Your task to perform on an android device: empty trash in google photos Image 0: 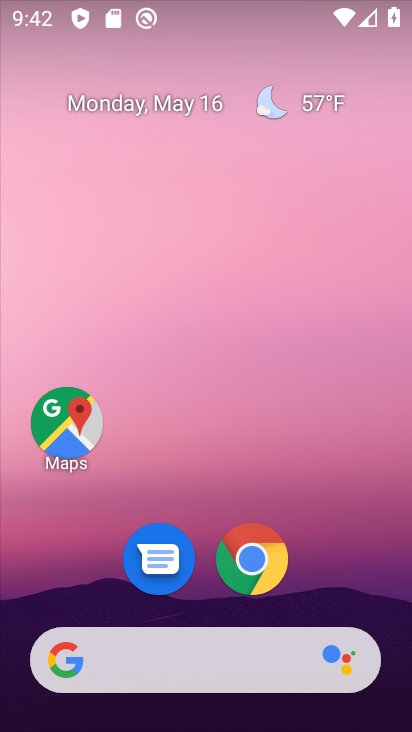
Step 0: drag from (365, 580) to (325, 80)
Your task to perform on an android device: empty trash in google photos Image 1: 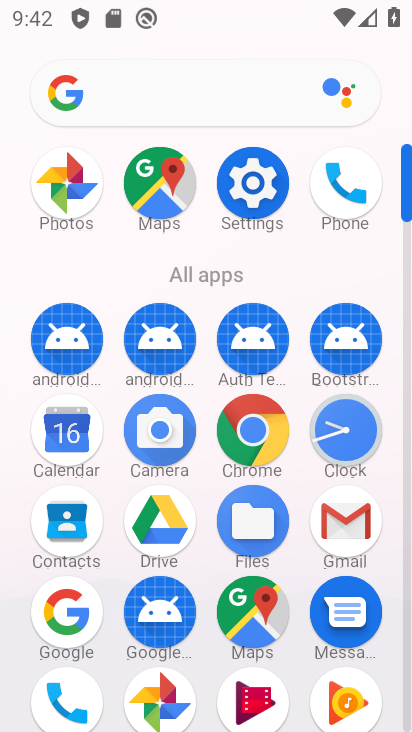
Step 1: click (162, 698)
Your task to perform on an android device: empty trash in google photos Image 2: 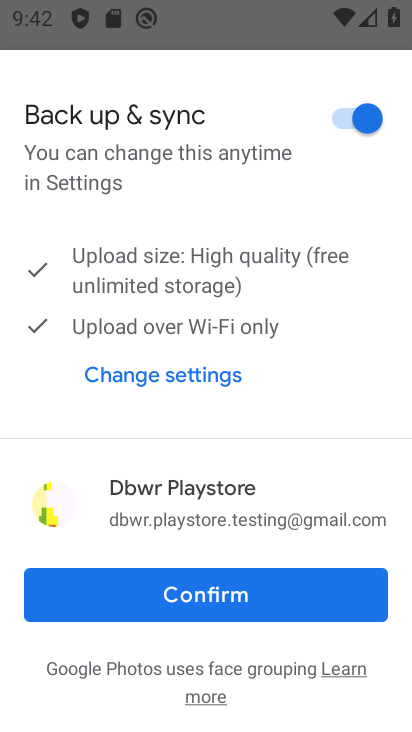
Step 2: click (228, 601)
Your task to perform on an android device: empty trash in google photos Image 3: 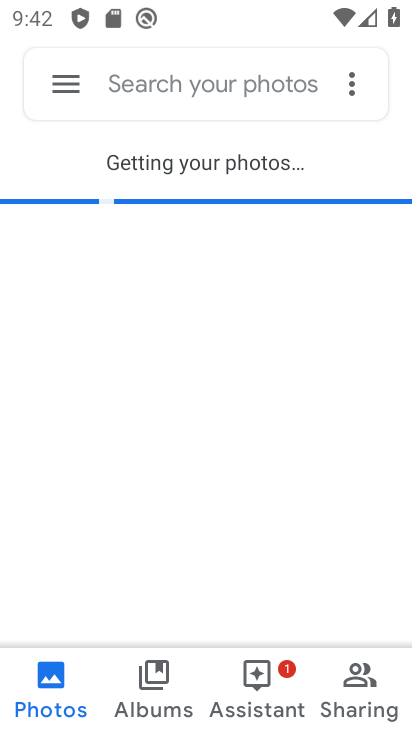
Step 3: click (63, 79)
Your task to perform on an android device: empty trash in google photos Image 4: 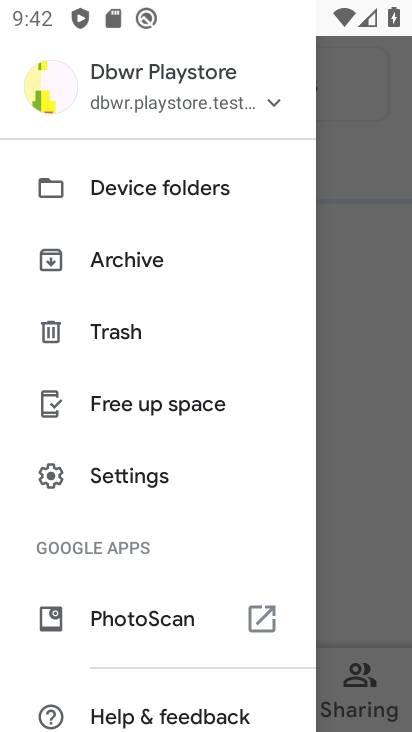
Step 4: click (144, 335)
Your task to perform on an android device: empty trash in google photos Image 5: 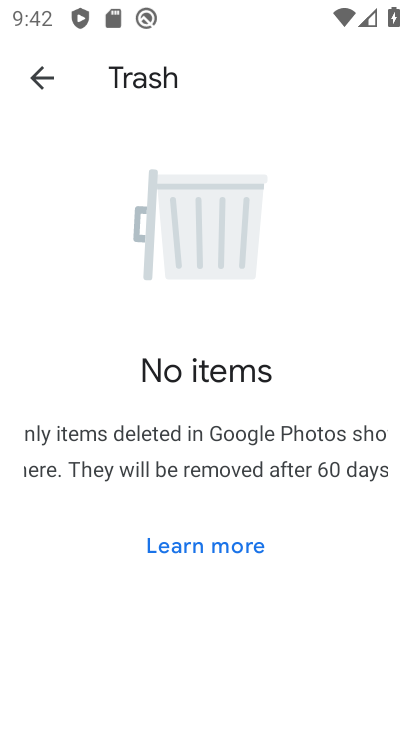
Step 5: task complete